Your task to perform on an android device: turn vacation reply on in the gmail app Image 0: 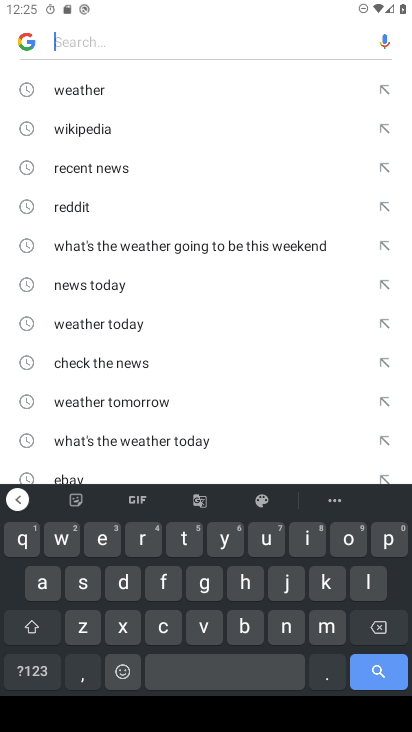
Step 0: press home button
Your task to perform on an android device: turn vacation reply on in the gmail app Image 1: 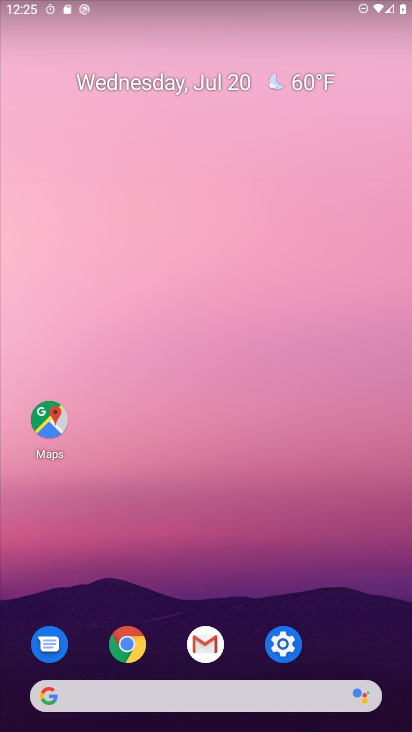
Step 1: click (206, 637)
Your task to perform on an android device: turn vacation reply on in the gmail app Image 2: 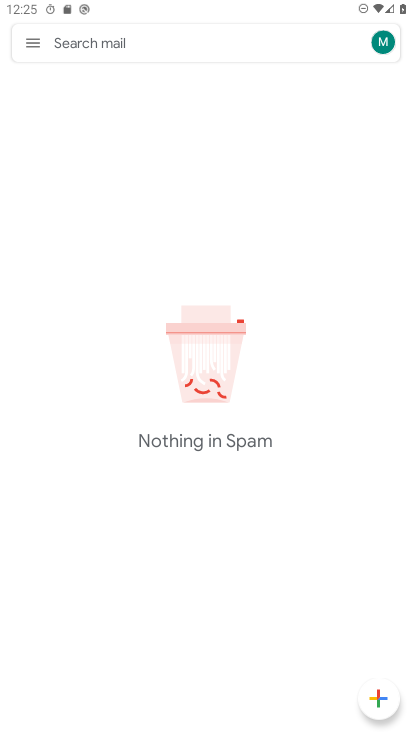
Step 2: click (26, 51)
Your task to perform on an android device: turn vacation reply on in the gmail app Image 3: 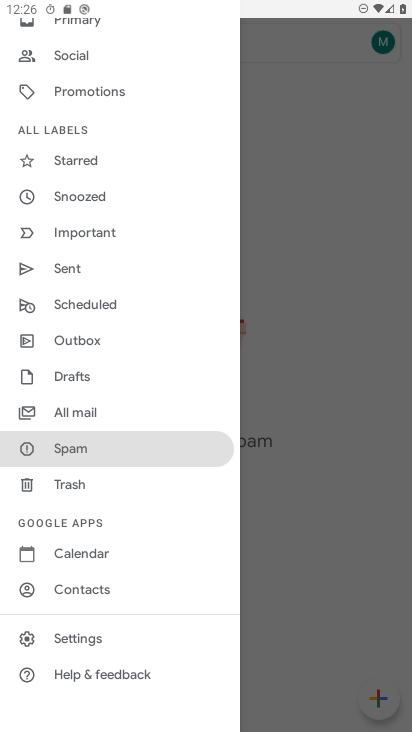
Step 3: click (78, 631)
Your task to perform on an android device: turn vacation reply on in the gmail app Image 4: 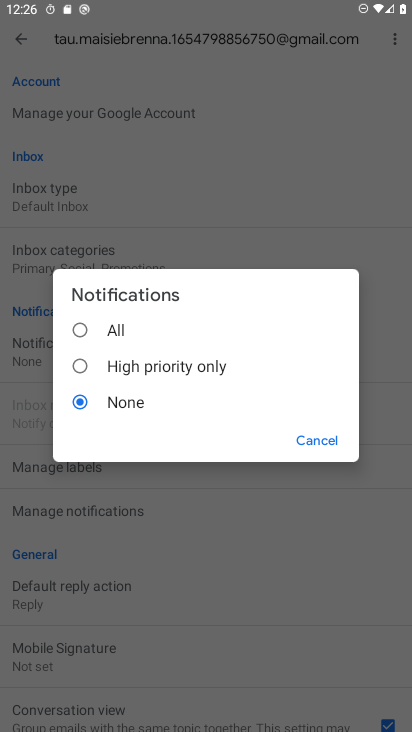
Step 4: click (304, 438)
Your task to perform on an android device: turn vacation reply on in the gmail app Image 5: 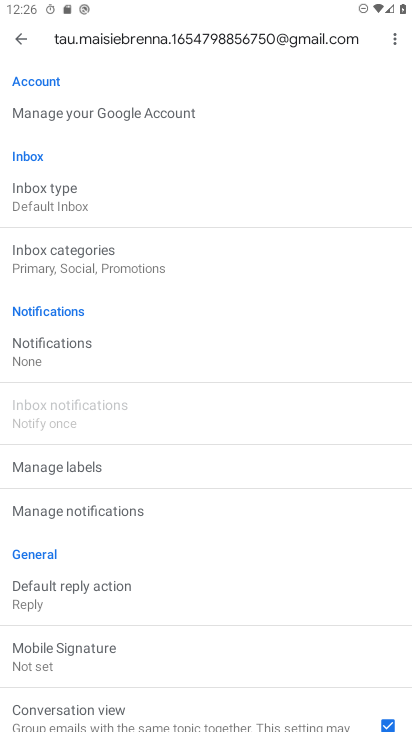
Step 5: drag from (145, 513) to (256, 348)
Your task to perform on an android device: turn vacation reply on in the gmail app Image 6: 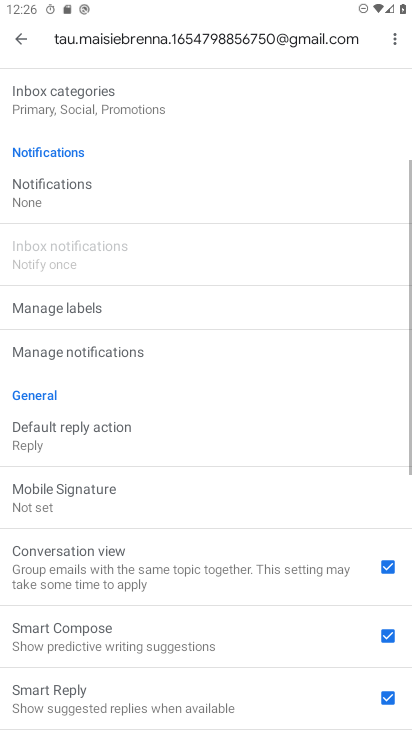
Step 6: drag from (181, 581) to (234, 470)
Your task to perform on an android device: turn vacation reply on in the gmail app Image 7: 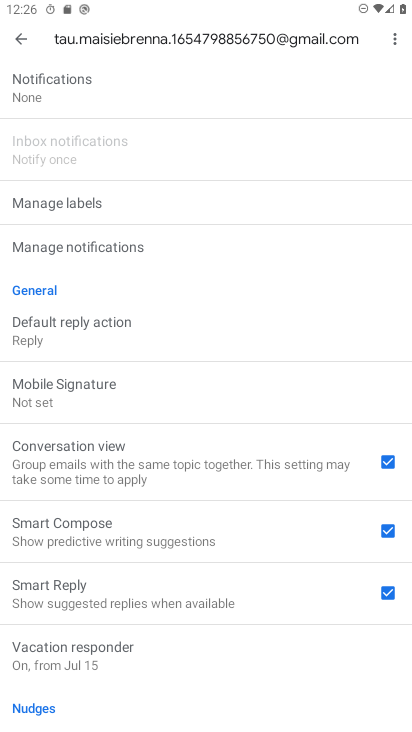
Step 7: click (91, 665)
Your task to perform on an android device: turn vacation reply on in the gmail app Image 8: 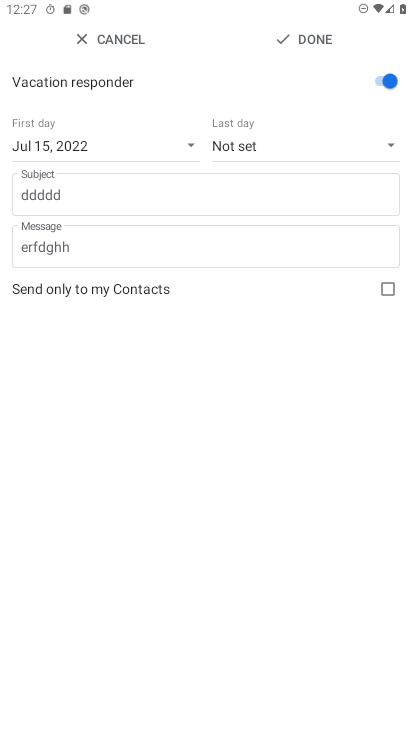
Step 8: task complete